Your task to perform on an android device: set the timer Image 0: 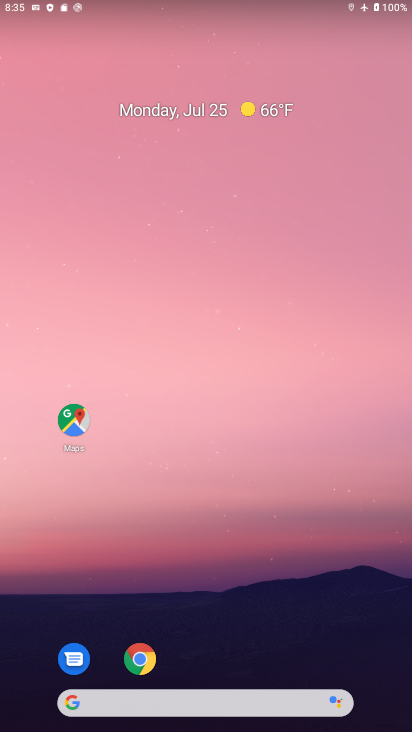
Step 0: drag from (149, 586) to (149, 252)
Your task to perform on an android device: set the timer Image 1: 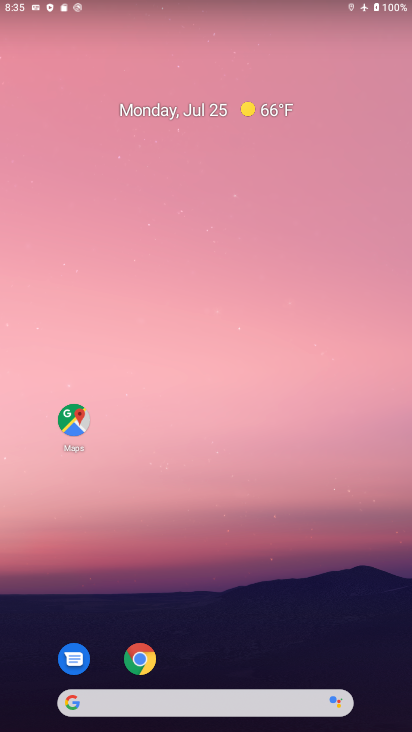
Step 1: drag from (242, 645) to (234, 161)
Your task to perform on an android device: set the timer Image 2: 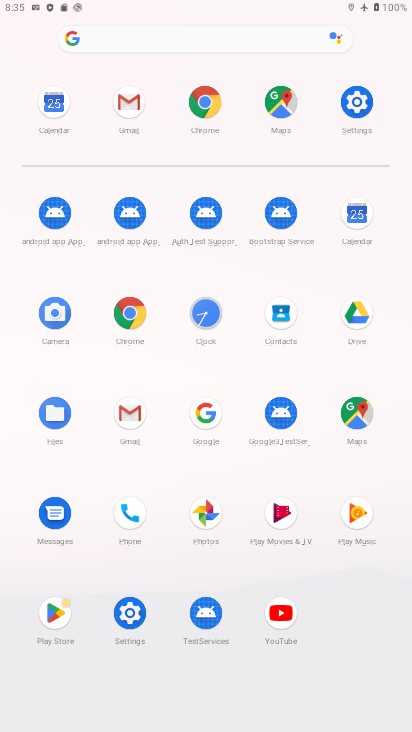
Step 2: click (201, 312)
Your task to perform on an android device: set the timer Image 3: 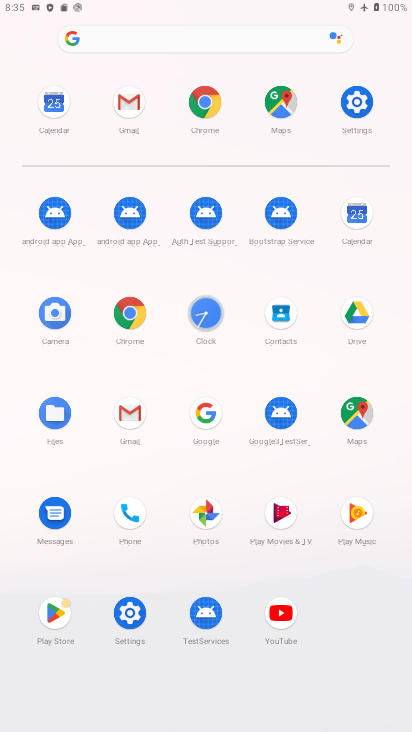
Step 3: click (200, 311)
Your task to perform on an android device: set the timer Image 4: 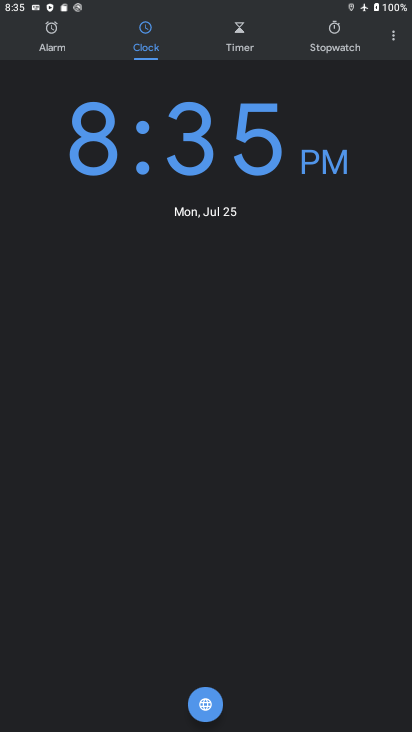
Step 4: click (231, 42)
Your task to perform on an android device: set the timer Image 5: 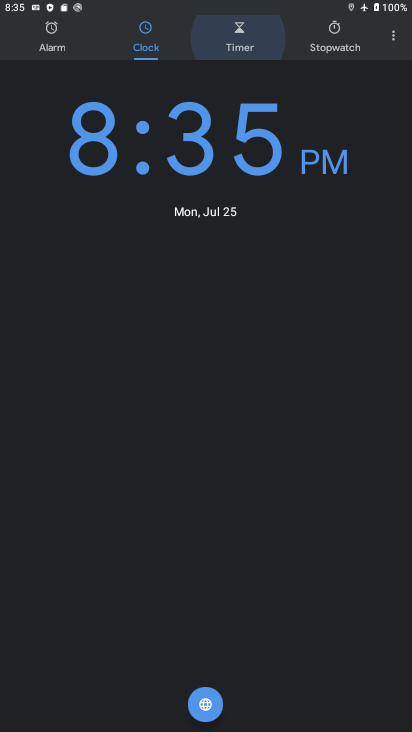
Step 5: click (231, 42)
Your task to perform on an android device: set the timer Image 6: 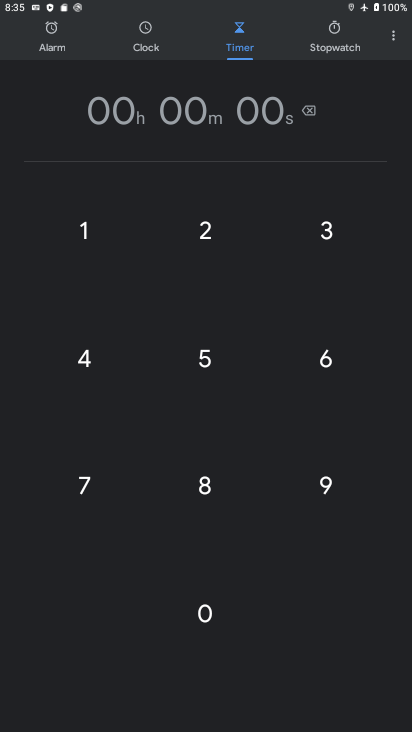
Step 6: click (212, 346)
Your task to perform on an android device: set the timer Image 7: 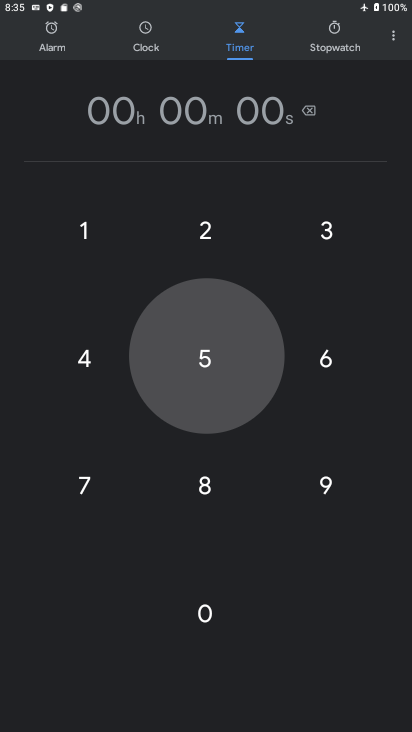
Step 7: click (210, 347)
Your task to perform on an android device: set the timer Image 8: 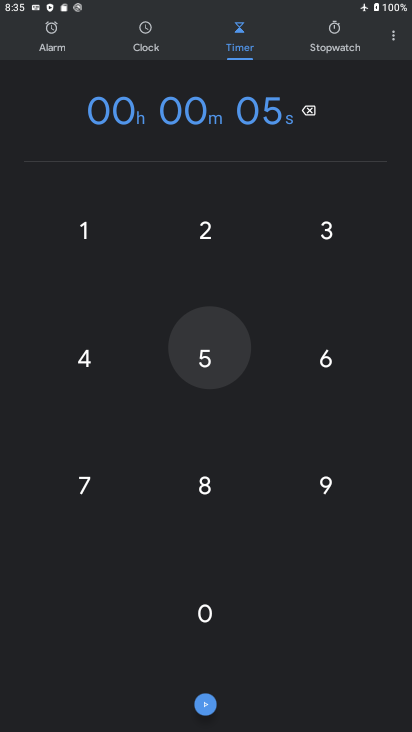
Step 8: click (212, 352)
Your task to perform on an android device: set the timer Image 9: 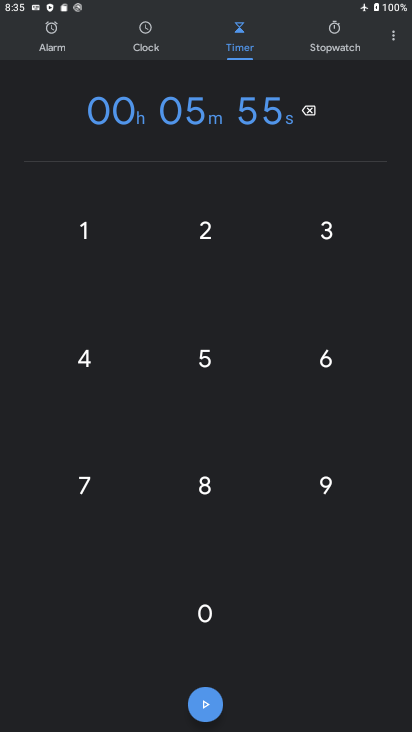
Step 9: click (208, 702)
Your task to perform on an android device: set the timer Image 10: 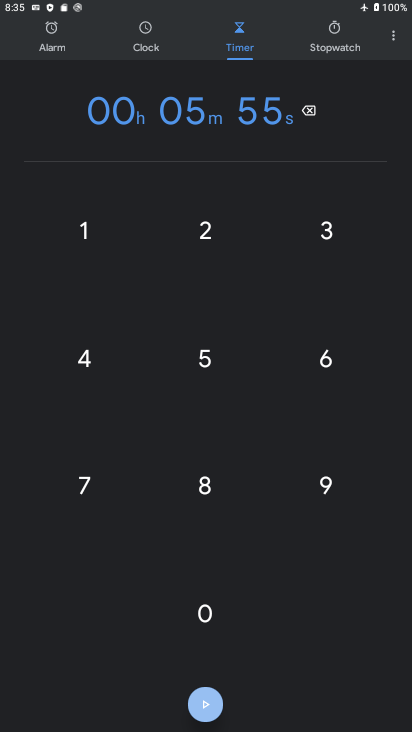
Step 10: click (207, 700)
Your task to perform on an android device: set the timer Image 11: 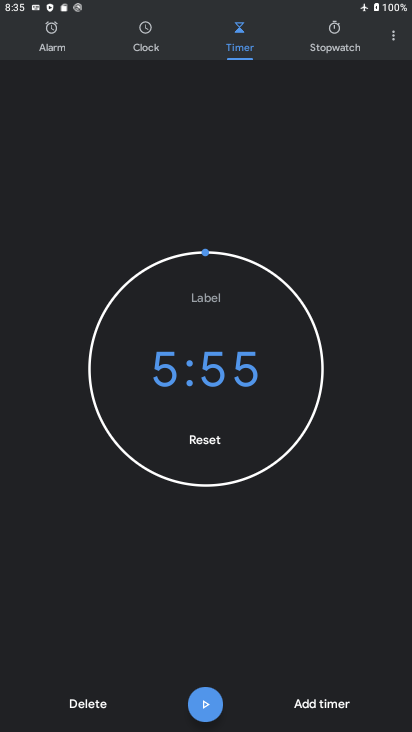
Step 11: click (200, 700)
Your task to perform on an android device: set the timer Image 12: 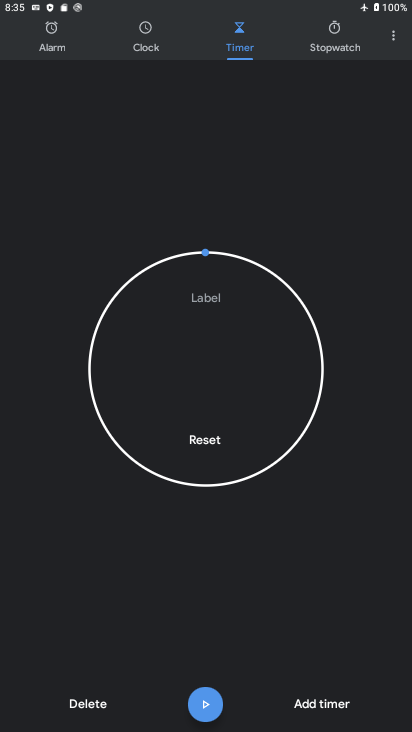
Step 12: click (205, 702)
Your task to perform on an android device: set the timer Image 13: 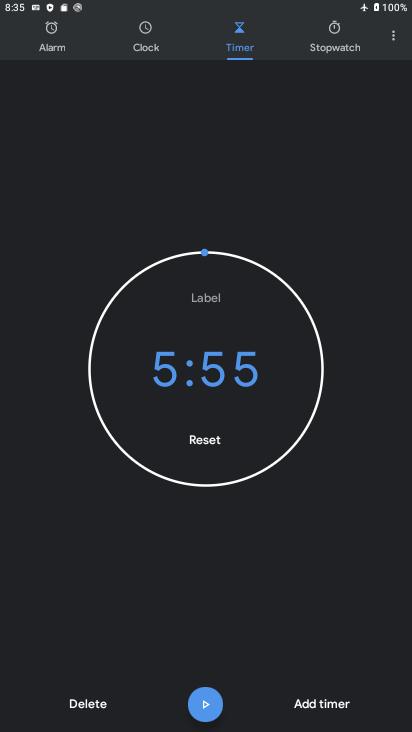
Step 13: click (208, 705)
Your task to perform on an android device: set the timer Image 14: 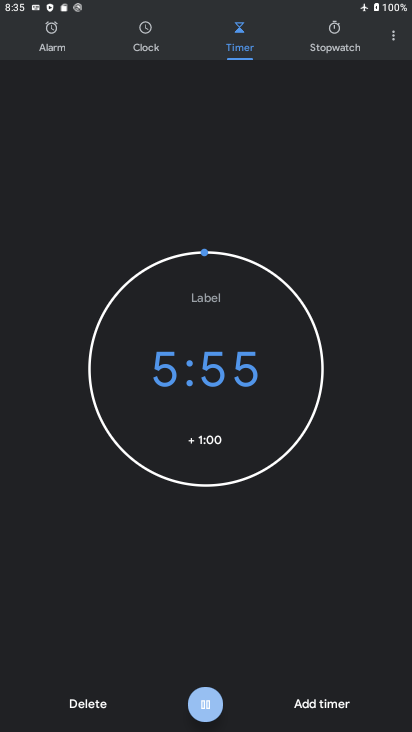
Step 14: click (207, 705)
Your task to perform on an android device: set the timer Image 15: 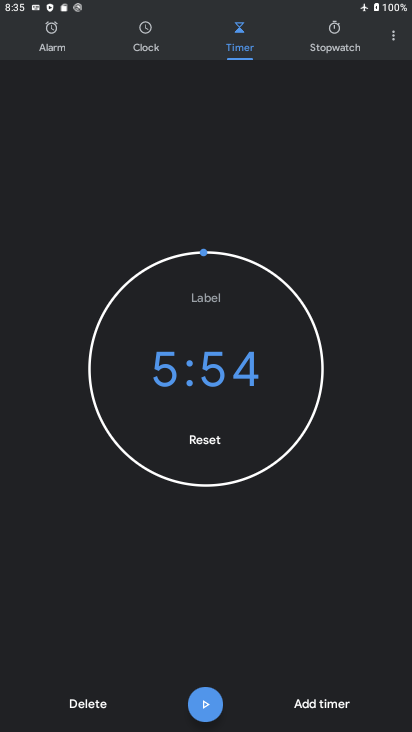
Step 15: click (209, 706)
Your task to perform on an android device: set the timer Image 16: 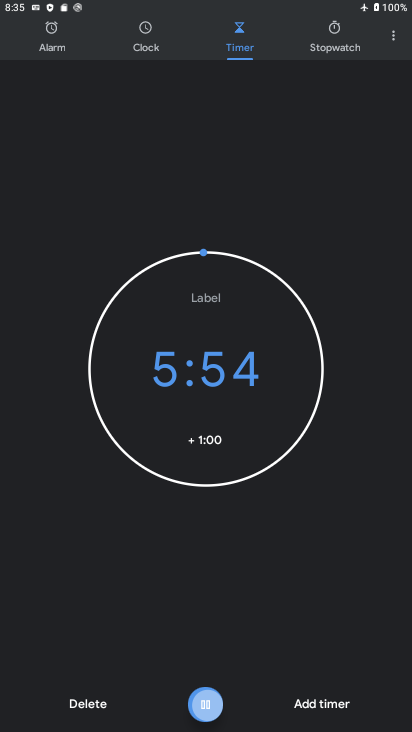
Step 16: click (209, 706)
Your task to perform on an android device: set the timer Image 17: 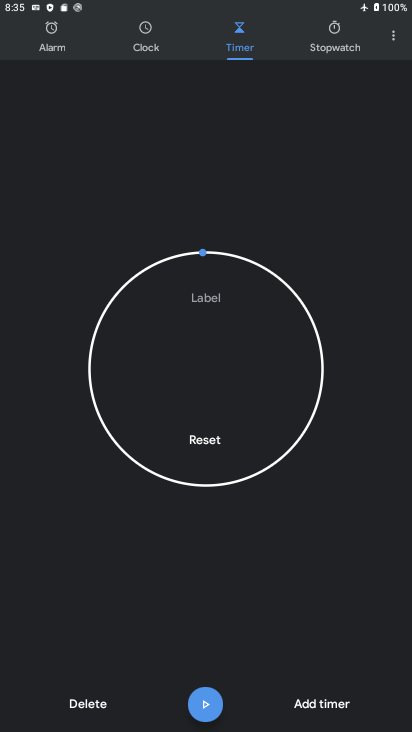
Step 17: click (206, 702)
Your task to perform on an android device: set the timer Image 18: 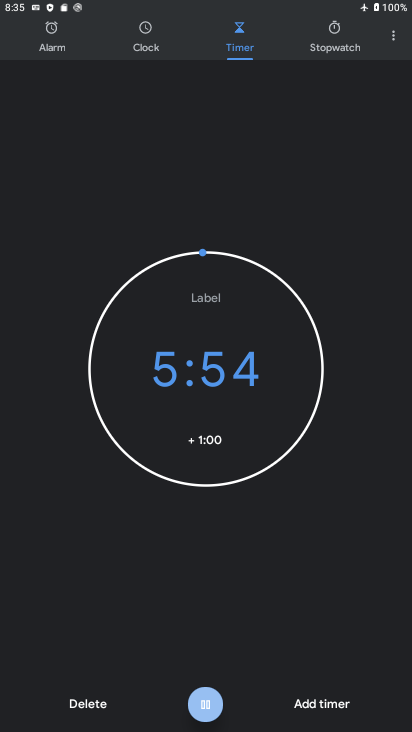
Step 18: click (206, 702)
Your task to perform on an android device: set the timer Image 19: 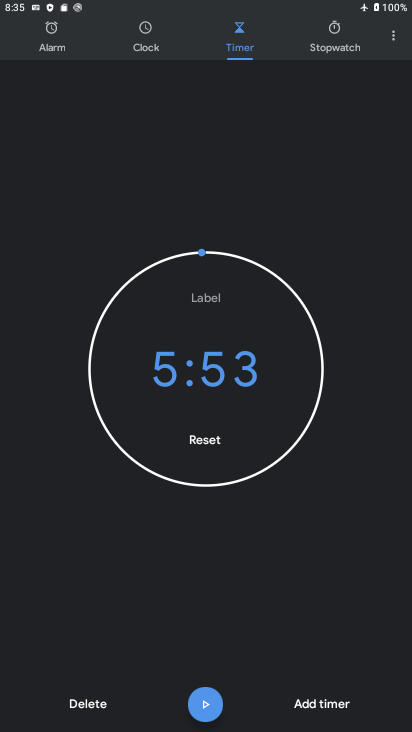
Step 19: click (207, 703)
Your task to perform on an android device: set the timer Image 20: 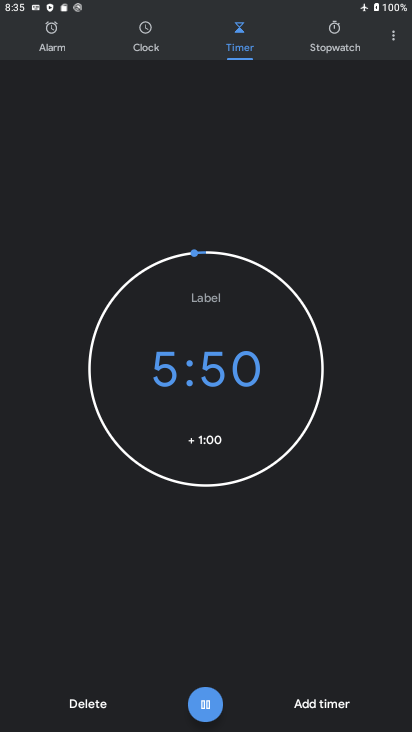
Step 20: click (203, 699)
Your task to perform on an android device: set the timer Image 21: 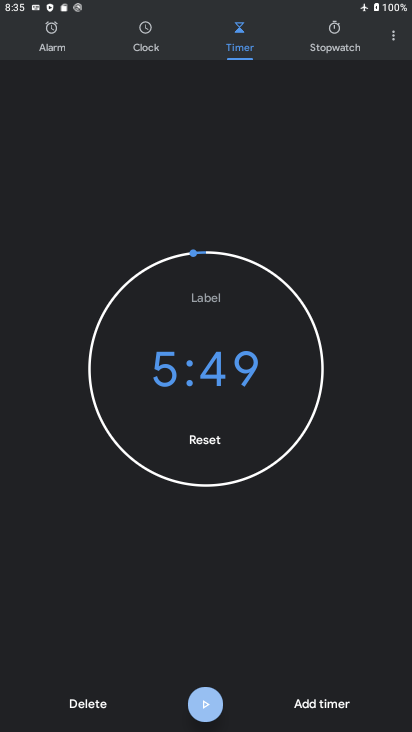
Step 21: click (202, 699)
Your task to perform on an android device: set the timer Image 22: 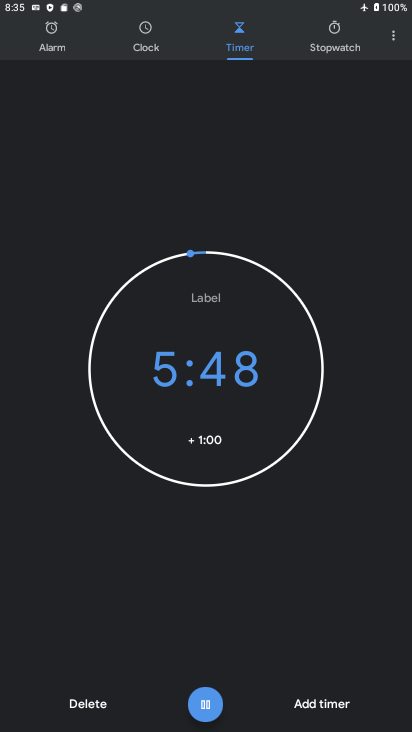
Step 22: click (201, 701)
Your task to perform on an android device: set the timer Image 23: 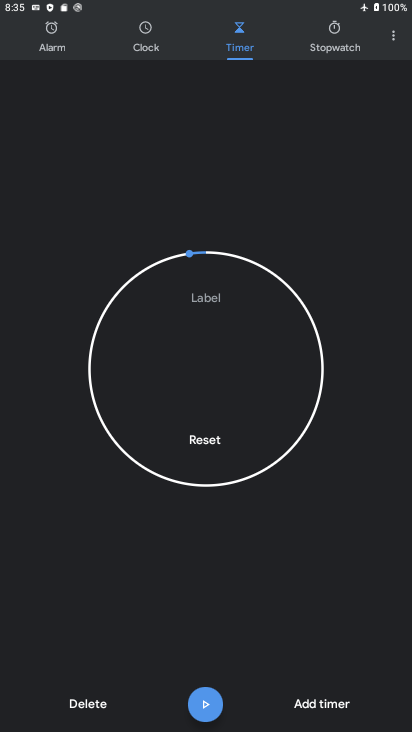
Step 23: task complete